Your task to perform on an android device: delete the emails in spam in the gmail app Image 0: 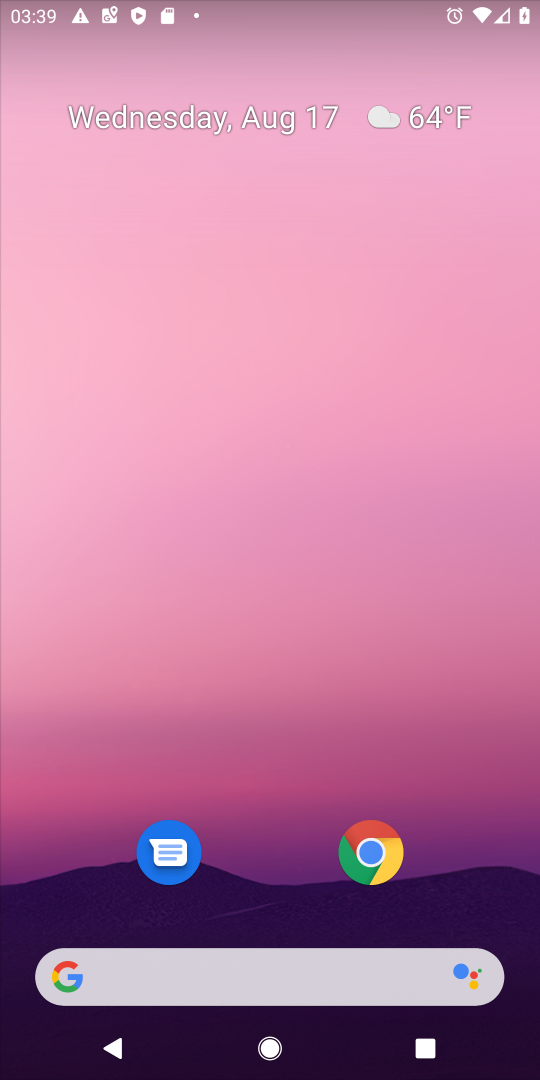
Step 0: drag from (280, 860) to (371, 195)
Your task to perform on an android device: delete the emails in spam in the gmail app Image 1: 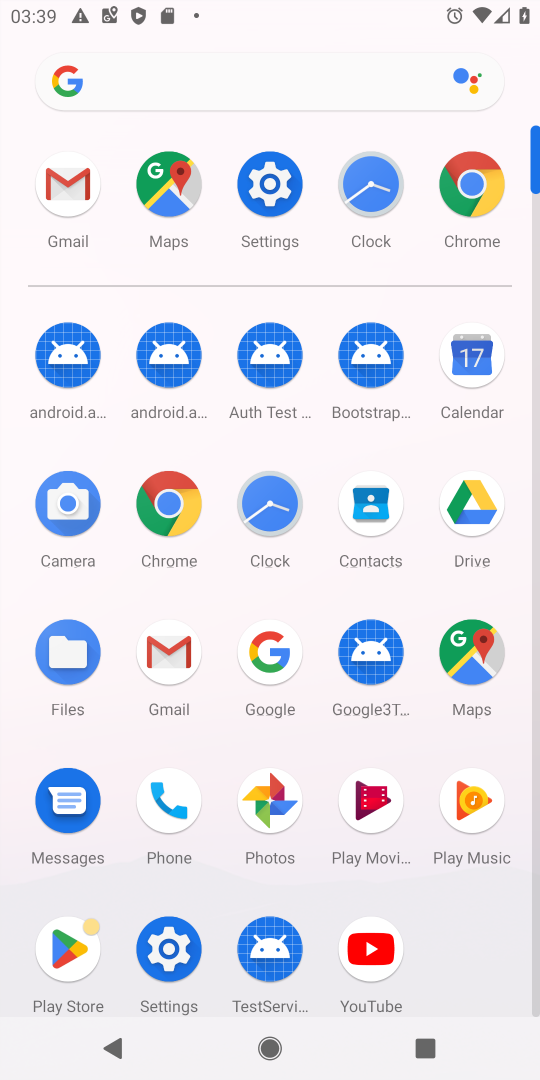
Step 1: click (180, 670)
Your task to perform on an android device: delete the emails in spam in the gmail app Image 2: 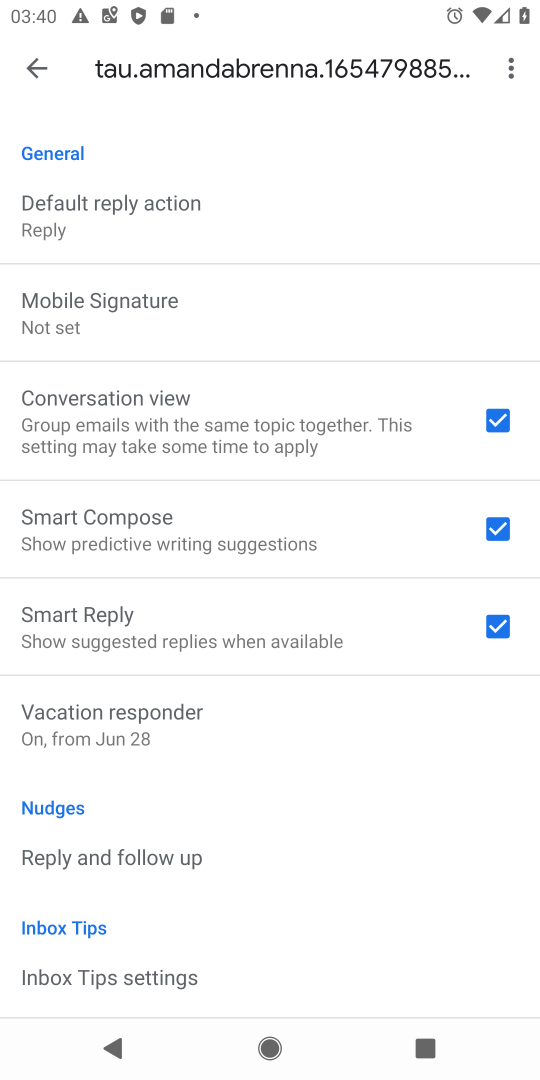
Step 2: press back button
Your task to perform on an android device: delete the emails in spam in the gmail app Image 3: 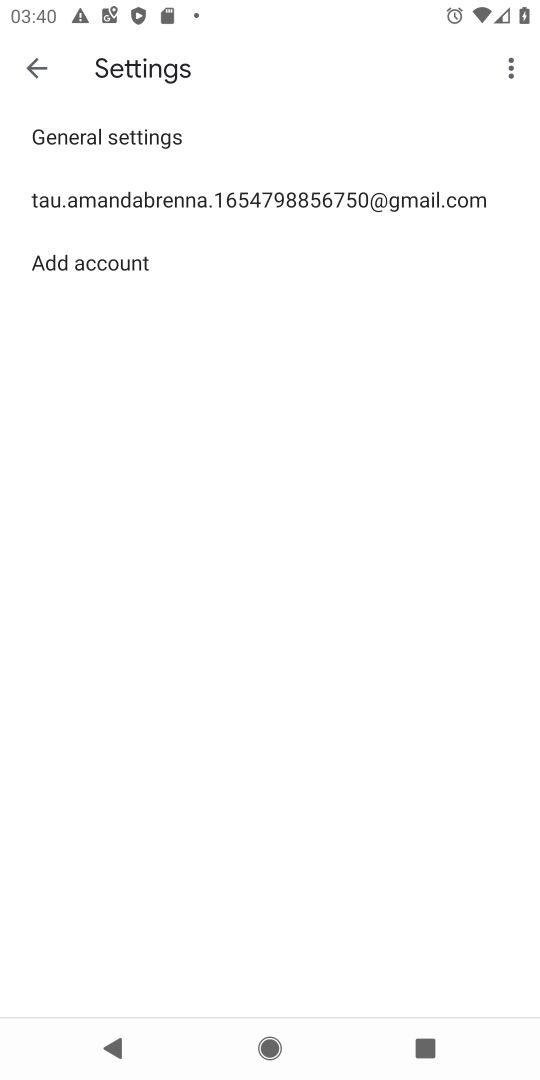
Step 3: press back button
Your task to perform on an android device: delete the emails in spam in the gmail app Image 4: 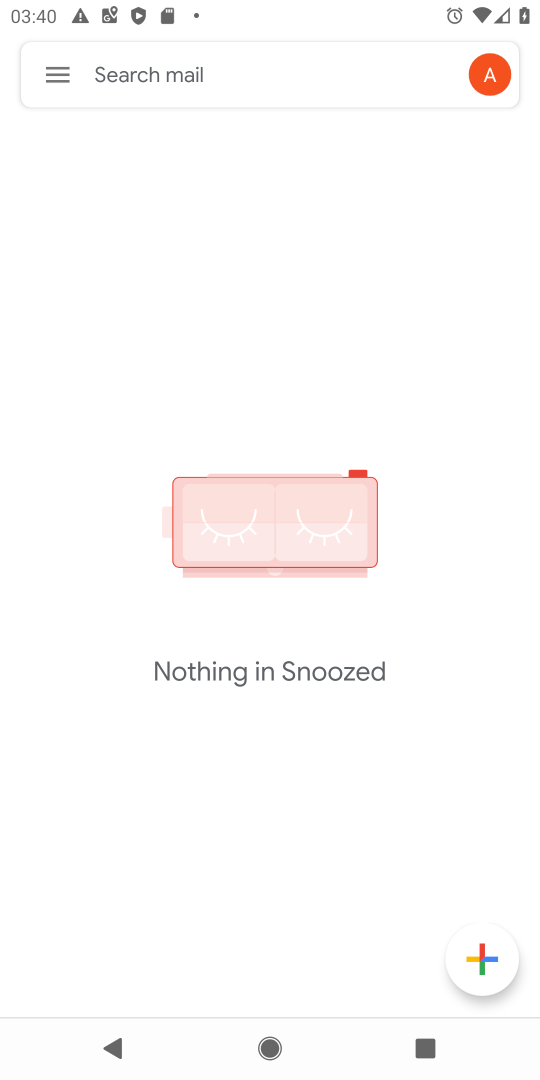
Step 4: click (54, 80)
Your task to perform on an android device: delete the emails in spam in the gmail app Image 5: 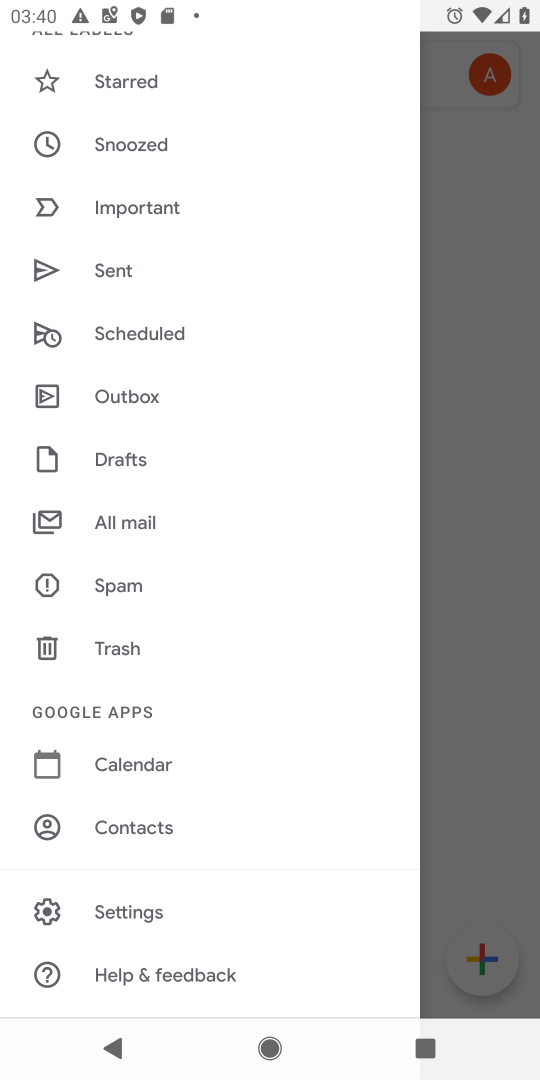
Step 5: click (107, 592)
Your task to perform on an android device: delete the emails in spam in the gmail app Image 6: 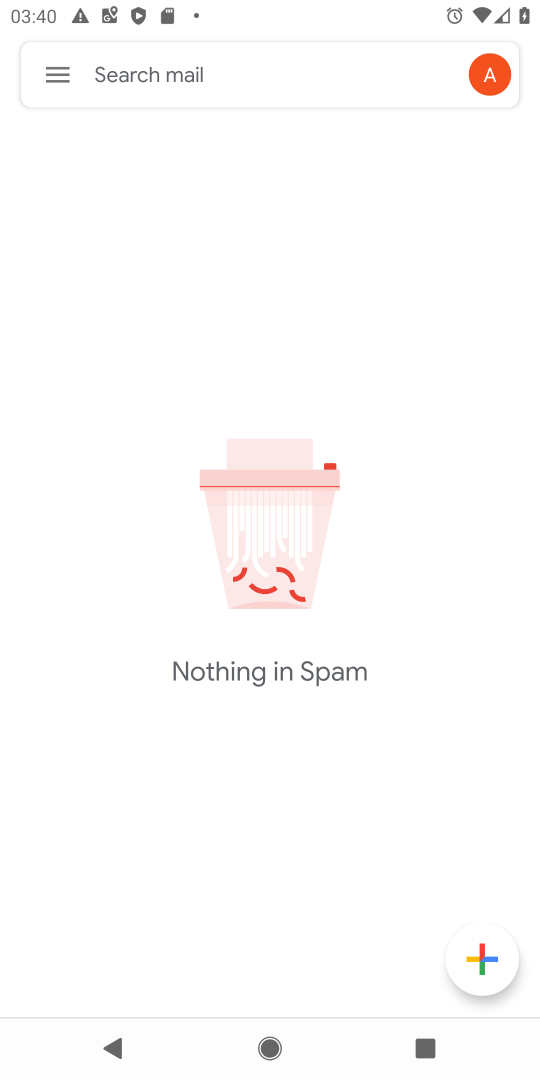
Step 6: task complete